Your task to perform on an android device: turn off location Image 0: 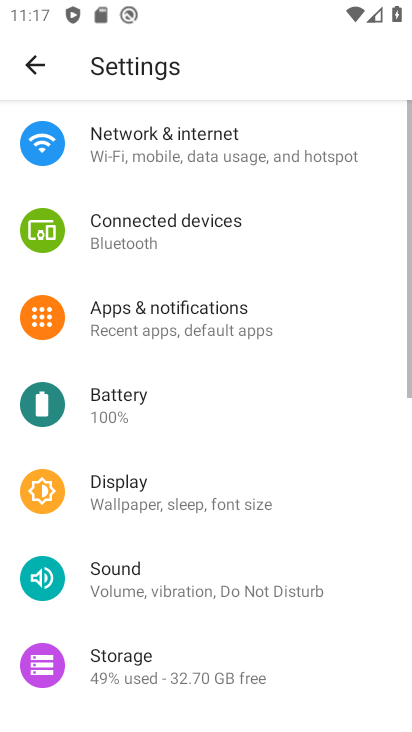
Step 0: press home button
Your task to perform on an android device: turn off location Image 1: 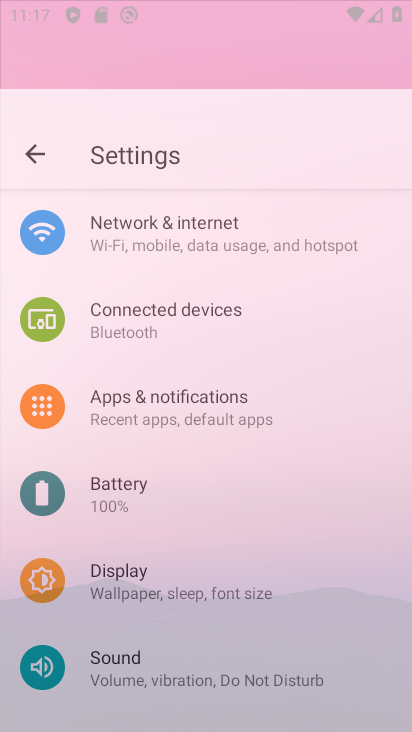
Step 1: press home button
Your task to perform on an android device: turn off location Image 2: 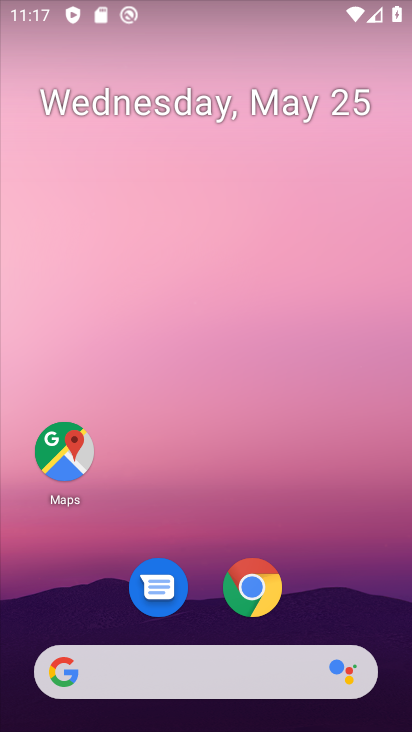
Step 2: drag from (274, 701) to (193, 142)
Your task to perform on an android device: turn off location Image 3: 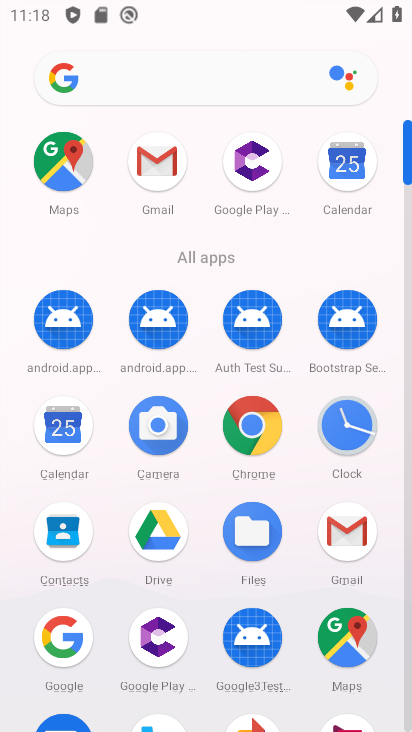
Step 3: drag from (122, 597) to (128, 369)
Your task to perform on an android device: turn off location Image 4: 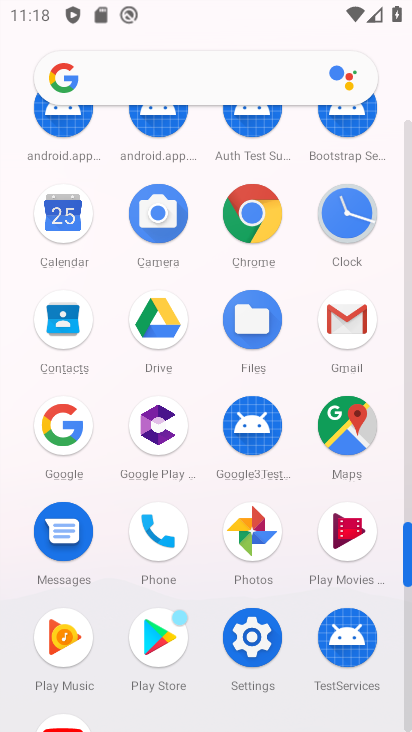
Step 4: click (253, 633)
Your task to perform on an android device: turn off location Image 5: 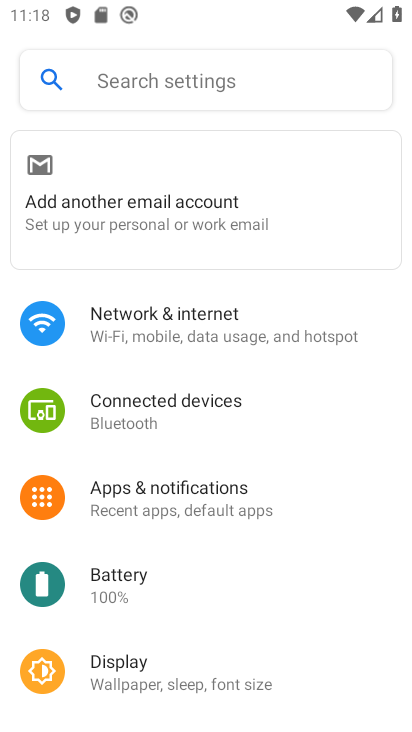
Step 5: click (184, 86)
Your task to perform on an android device: turn off location Image 6: 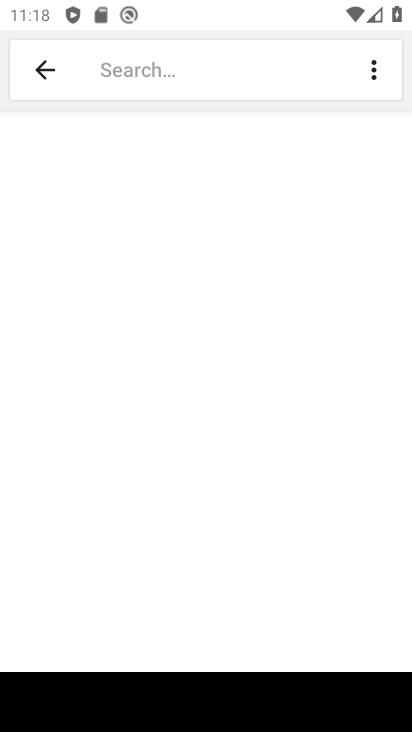
Step 6: drag from (384, 698) to (359, 420)
Your task to perform on an android device: turn off location Image 7: 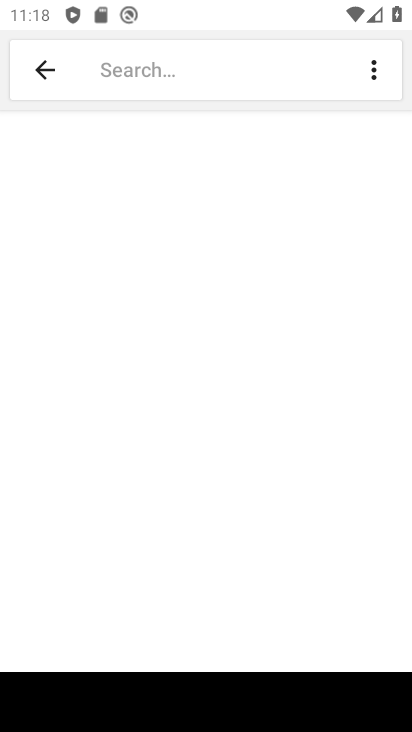
Step 7: click (385, 695)
Your task to perform on an android device: turn off location Image 8: 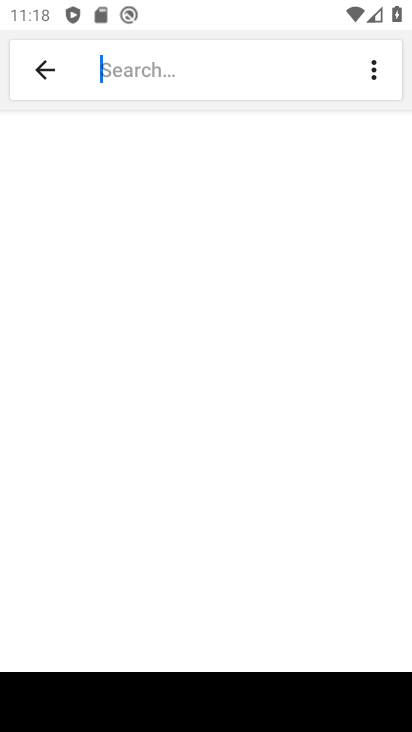
Step 8: drag from (369, 703) to (349, 502)
Your task to perform on an android device: turn off location Image 9: 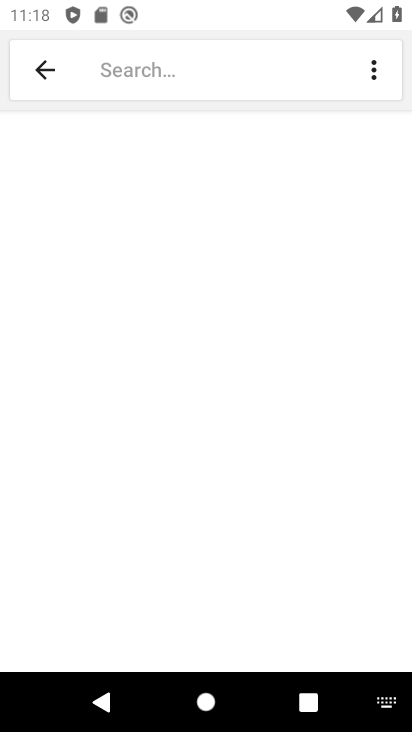
Step 9: click (383, 699)
Your task to perform on an android device: turn off location Image 10: 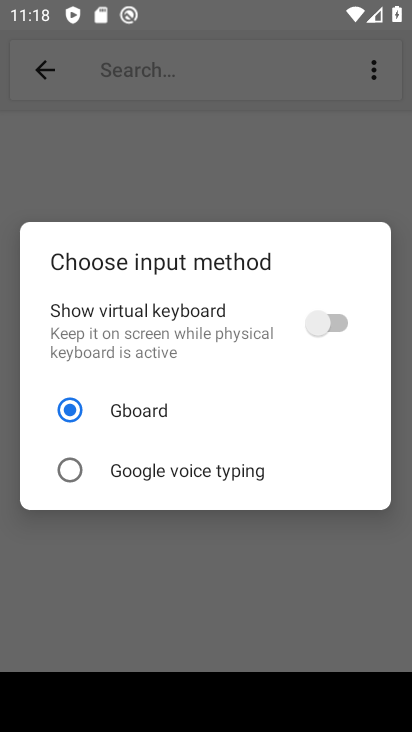
Step 10: click (324, 326)
Your task to perform on an android device: turn off location Image 11: 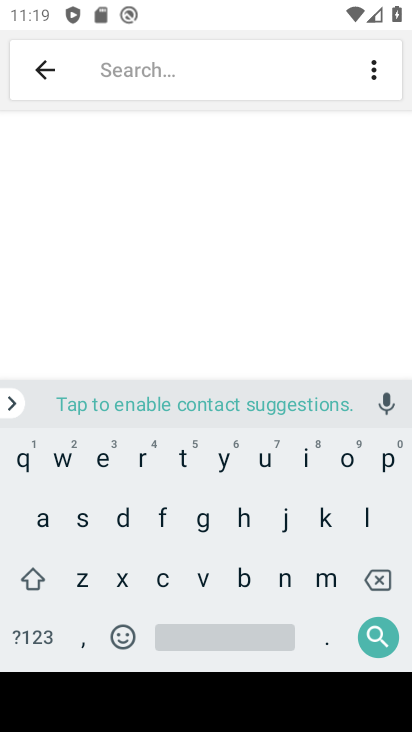
Step 11: click (371, 512)
Your task to perform on an android device: turn off location Image 12: 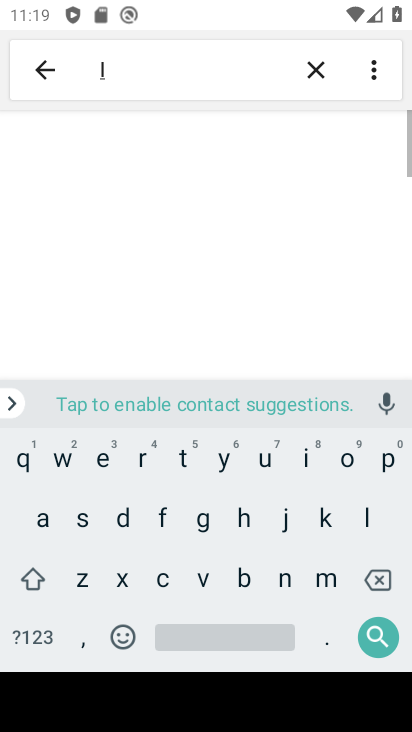
Step 12: click (350, 468)
Your task to perform on an android device: turn off location Image 13: 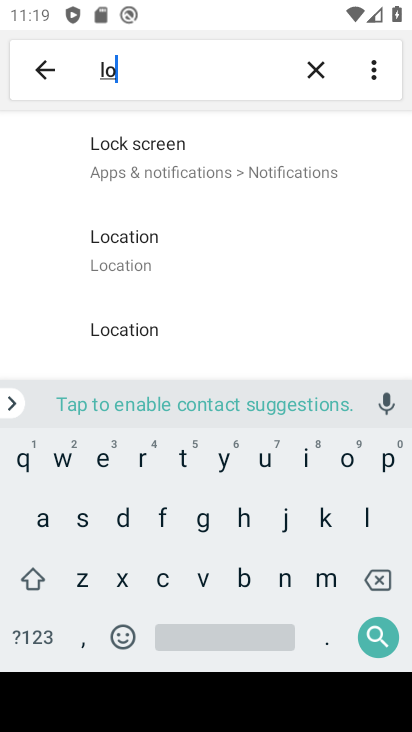
Step 13: click (136, 258)
Your task to perform on an android device: turn off location Image 14: 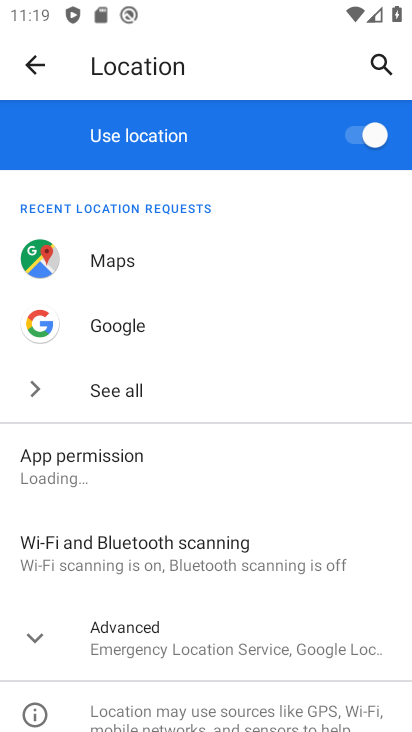
Step 14: click (354, 132)
Your task to perform on an android device: turn off location Image 15: 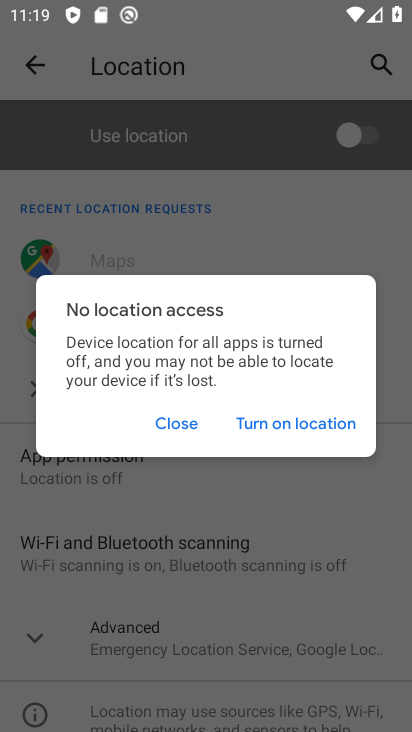
Step 15: task complete